Your task to perform on an android device: Show me popular games on the Play Store Image 0: 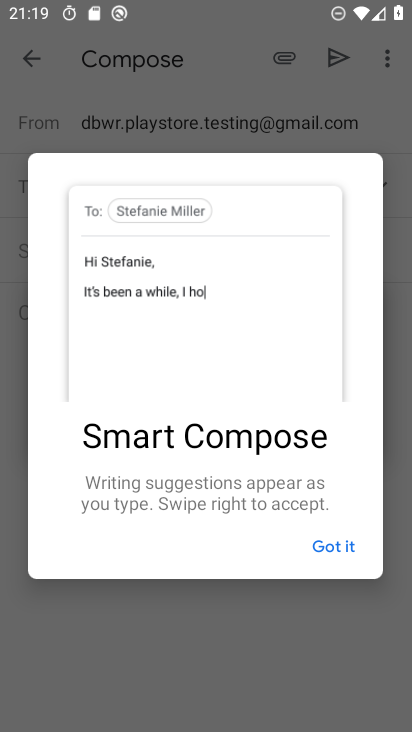
Step 0: press home button
Your task to perform on an android device: Show me popular games on the Play Store Image 1: 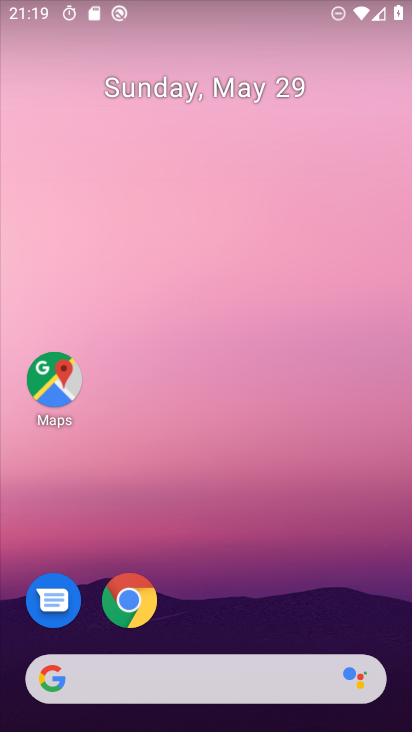
Step 1: drag from (340, 574) to (365, 126)
Your task to perform on an android device: Show me popular games on the Play Store Image 2: 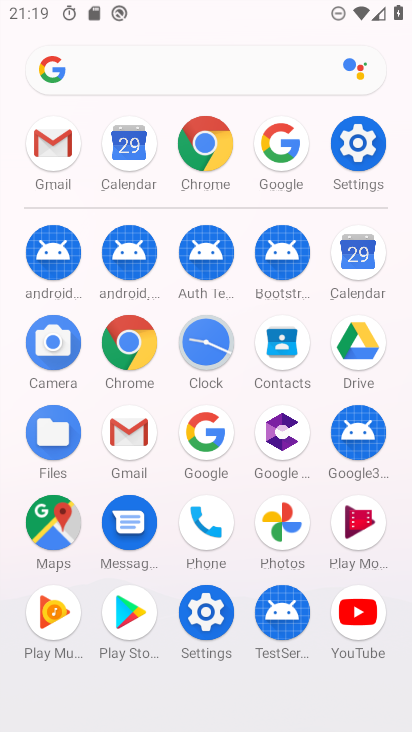
Step 2: click (122, 635)
Your task to perform on an android device: Show me popular games on the Play Store Image 3: 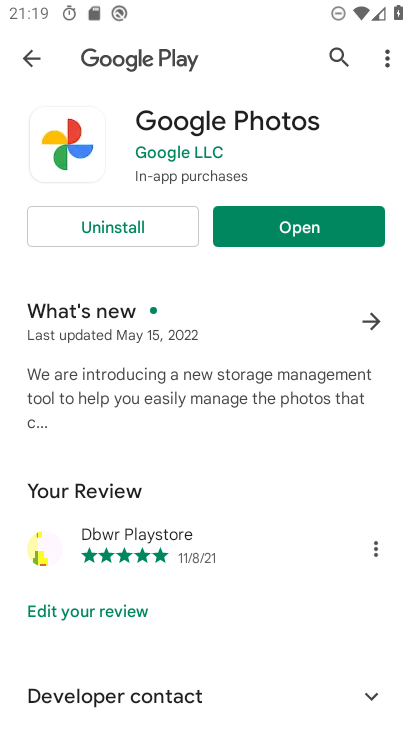
Step 3: press home button
Your task to perform on an android device: Show me popular games on the Play Store Image 4: 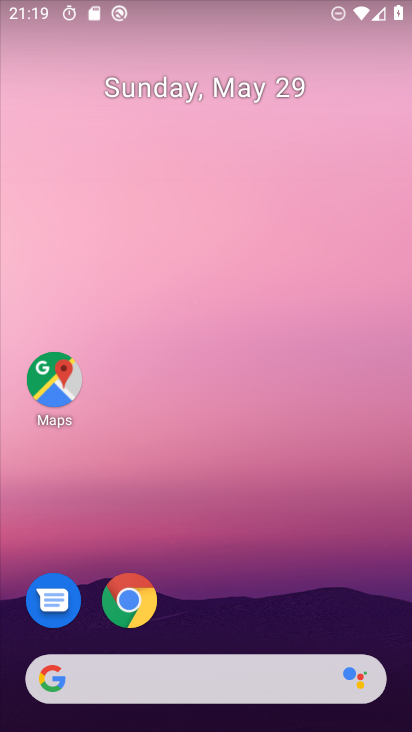
Step 4: drag from (285, 595) to (289, 118)
Your task to perform on an android device: Show me popular games on the Play Store Image 5: 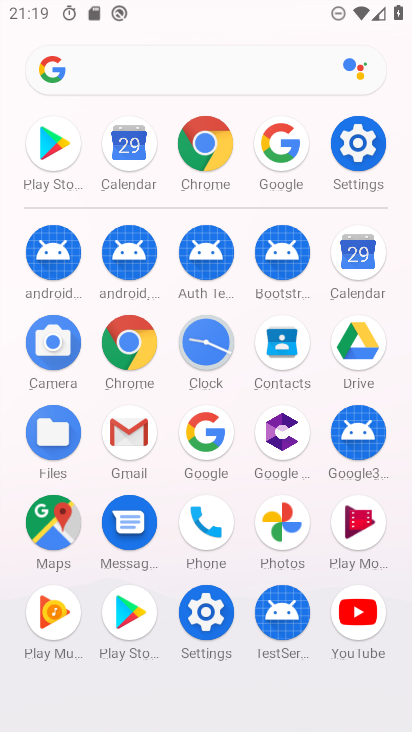
Step 5: click (120, 623)
Your task to perform on an android device: Show me popular games on the Play Store Image 6: 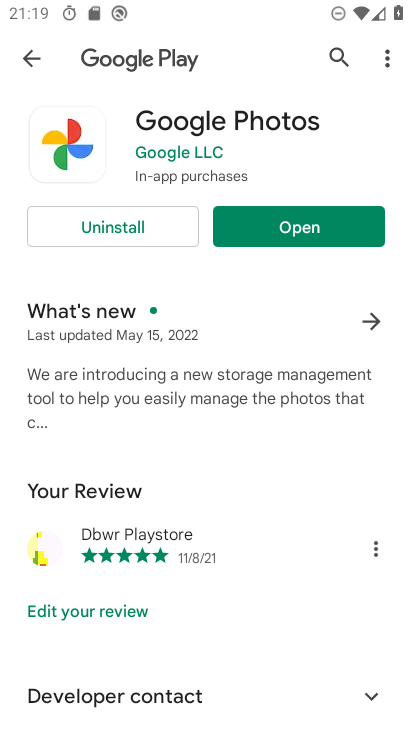
Step 6: click (33, 66)
Your task to perform on an android device: Show me popular games on the Play Store Image 7: 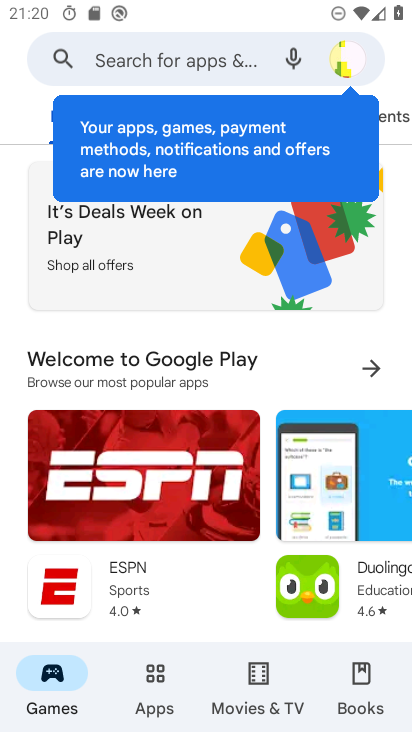
Step 7: click (12, 116)
Your task to perform on an android device: Show me popular games on the Play Store Image 8: 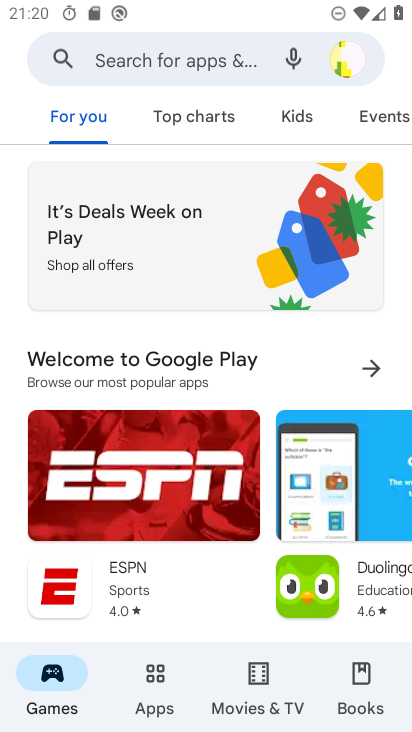
Step 8: click (227, 115)
Your task to perform on an android device: Show me popular games on the Play Store Image 9: 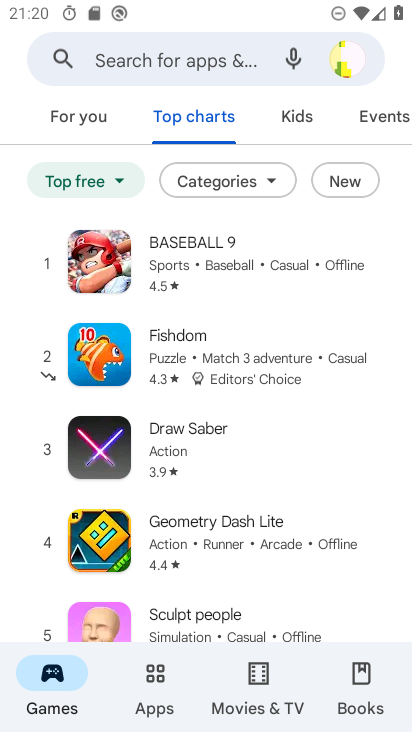
Step 9: task complete